Your task to perform on an android device: Open Google Maps Image 0: 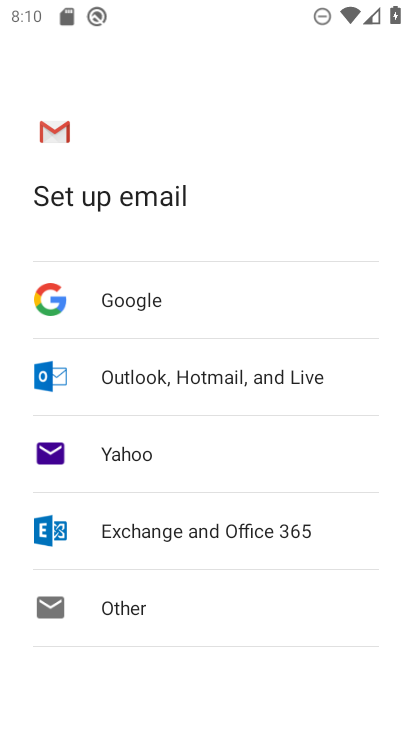
Step 0: press home button
Your task to perform on an android device: Open Google Maps Image 1: 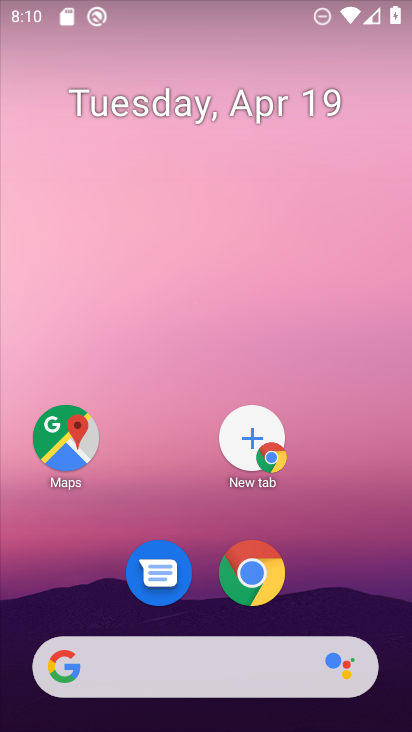
Step 1: click (45, 434)
Your task to perform on an android device: Open Google Maps Image 2: 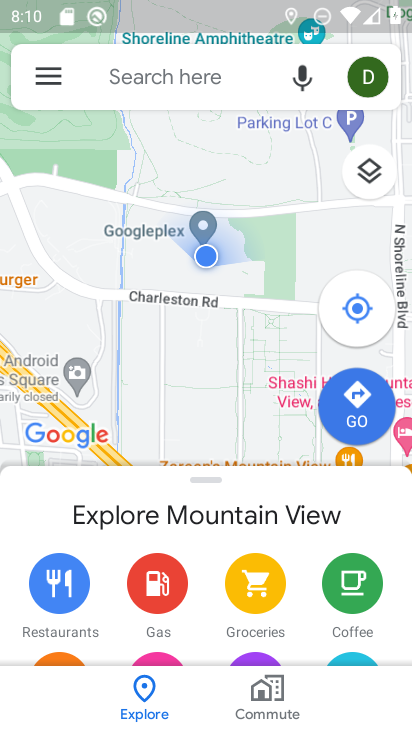
Step 2: task complete